Your task to perform on an android device: read, delete, or share a saved page in the chrome app Image 0: 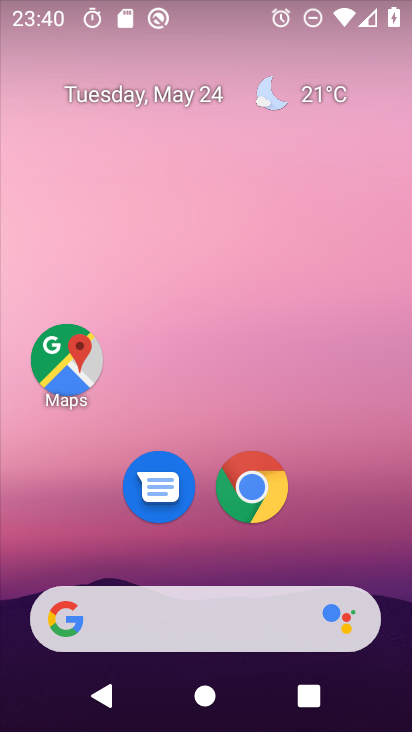
Step 0: click (353, 495)
Your task to perform on an android device: read, delete, or share a saved page in the chrome app Image 1: 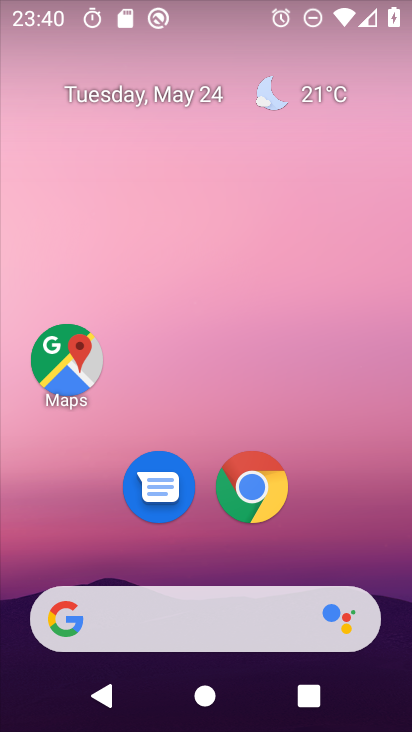
Step 1: click (263, 486)
Your task to perform on an android device: read, delete, or share a saved page in the chrome app Image 2: 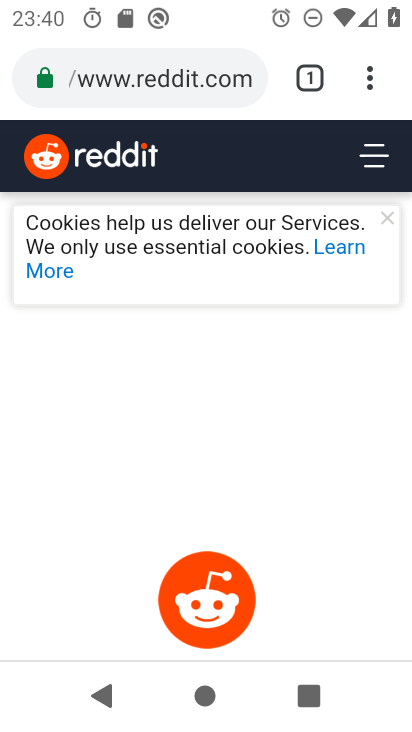
Step 2: click (371, 83)
Your task to perform on an android device: read, delete, or share a saved page in the chrome app Image 3: 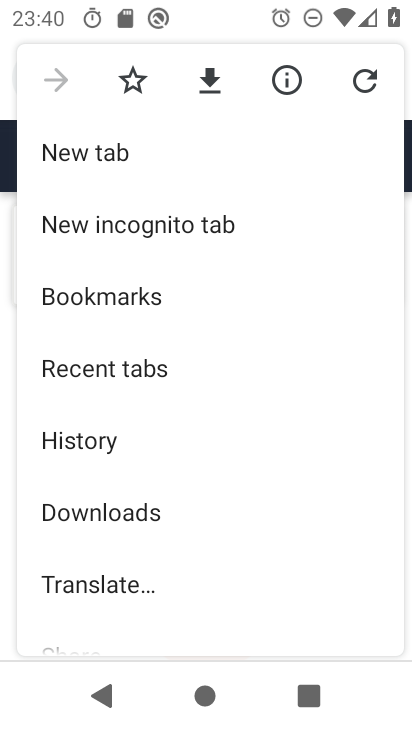
Step 3: click (89, 509)
Your task to perform on an android device: read, delete, or share a saved page in the chrome app Image 4: 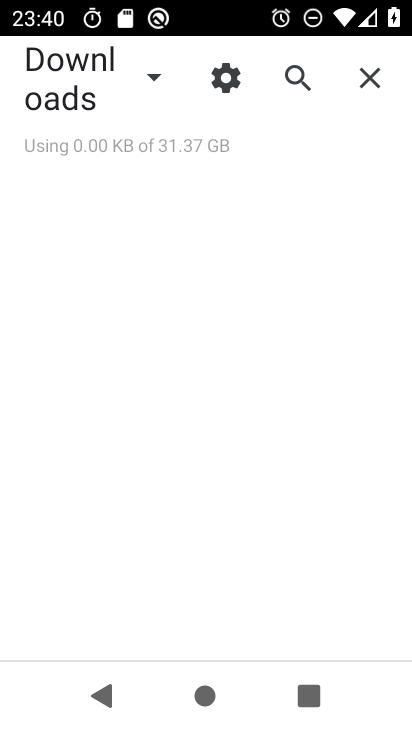
Step 4: click (153, 85)
Your task to perform on an android device: read, delete, or share a saved page in the chrome app Image 5: 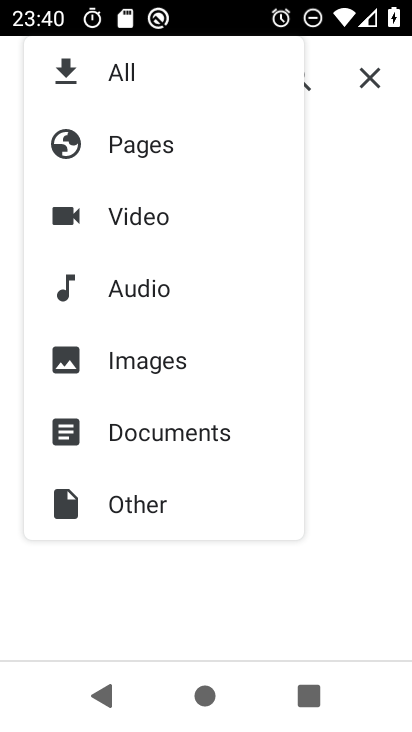
Step 5: click (128, 154)
Your task to perform on an android device: read, delete, or share a saved page in the chrome app Image 6: 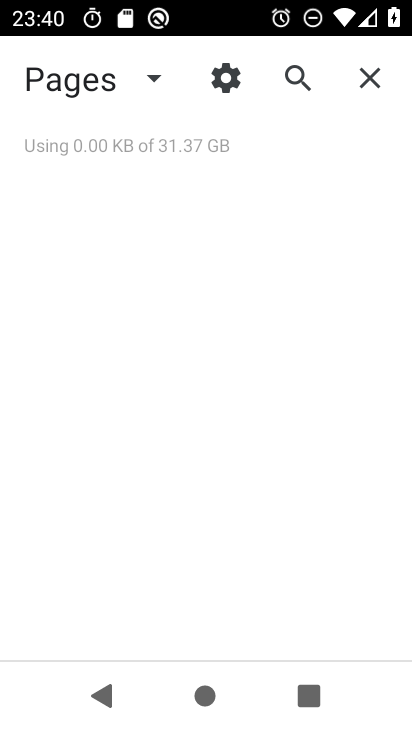
Step 6: task complete